Your task to perform on an android device: turn smart compose on in the gmail app Image 0: 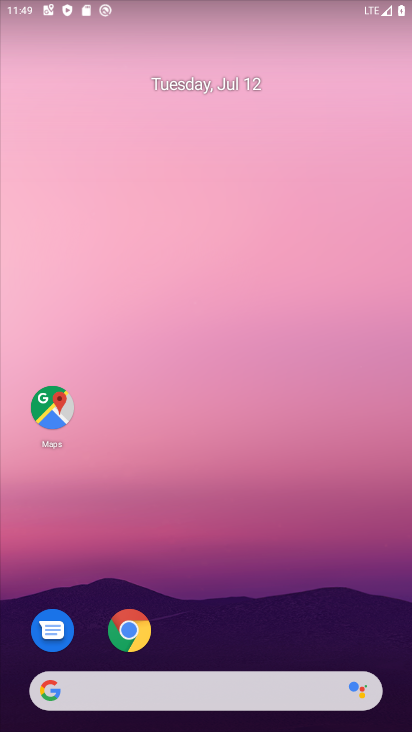
Step 0: drag from (385, 630) to (174, 22)
Your task to perform on an android device: turn smart compose on in the gmail app Image 1: 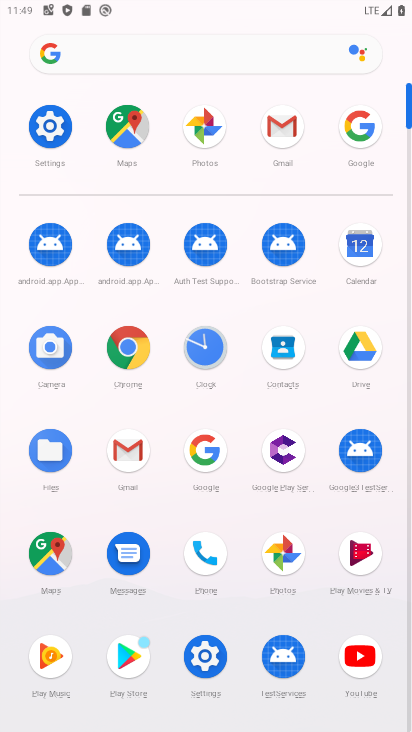
Step 1: click (108, 453)
Your task to perform on an android device: turn smart compose on in the gmail app Image 2: 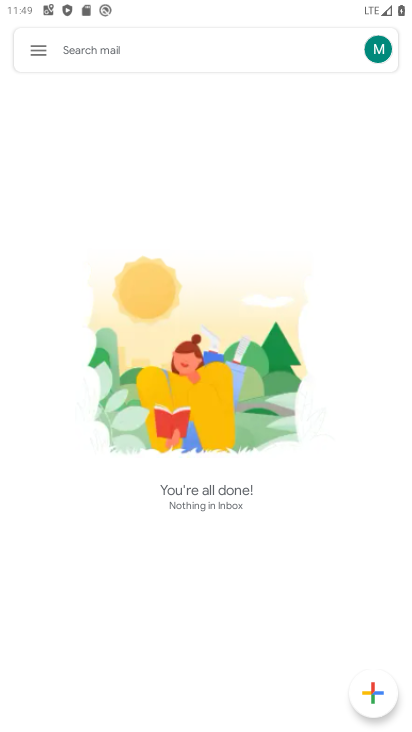
Step 2: click (32, 41)
Your task to perform on an android device: turn smart compose on in the gmail app Image 3: 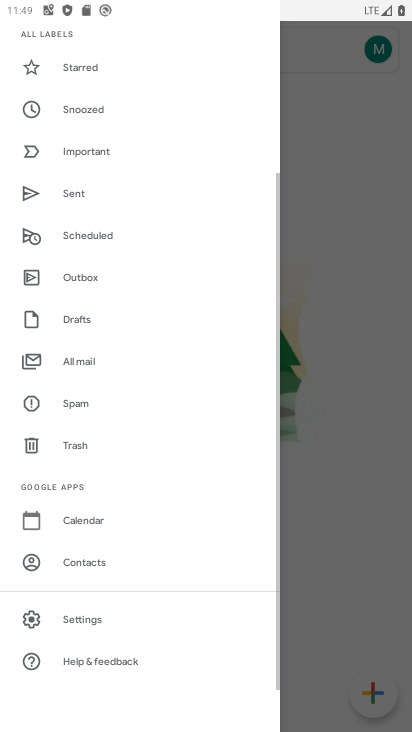
Step 3: click (106, 619)
Your task to perform on an android device: turn smart compose on in the gmail app Image 4: 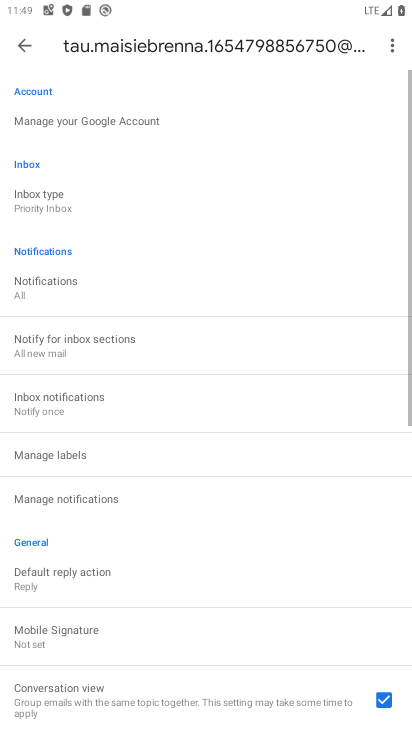
Step 4: task complete